Your task to perform on an android device: Go to eBay Image 0: 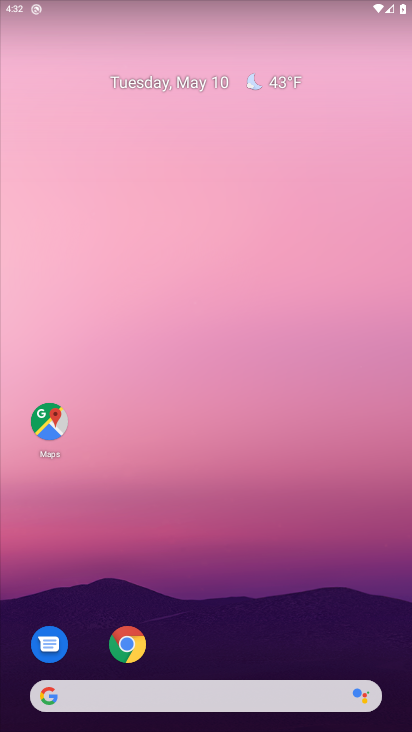
Step 0: click (115, 642)
Your task to perform on an android device: Go to eBay Image 1: 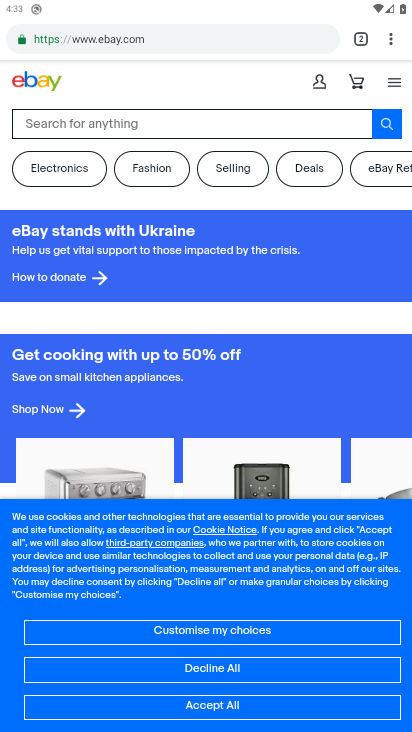
Step 1: task complete